Your task to perform on an android device: snooze an email in the gmail app Image 0: 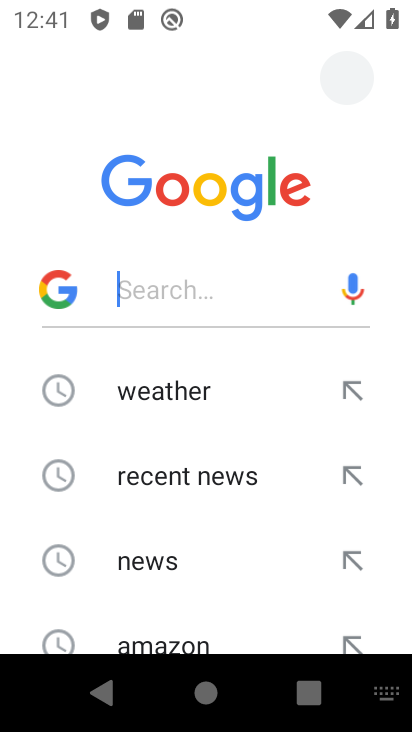
Step 0: press home button
Your task to perform on an android device: snooze an email in the gmail app Image 1: 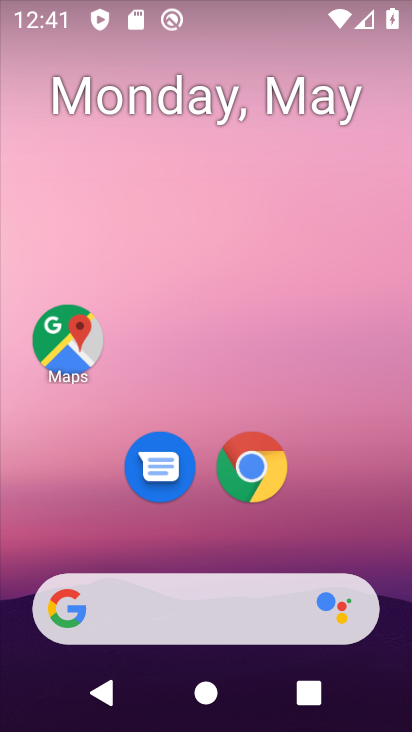
Step 1: press home button
Your task to perform on an android device: snooze an email in the gmail app Image 2: 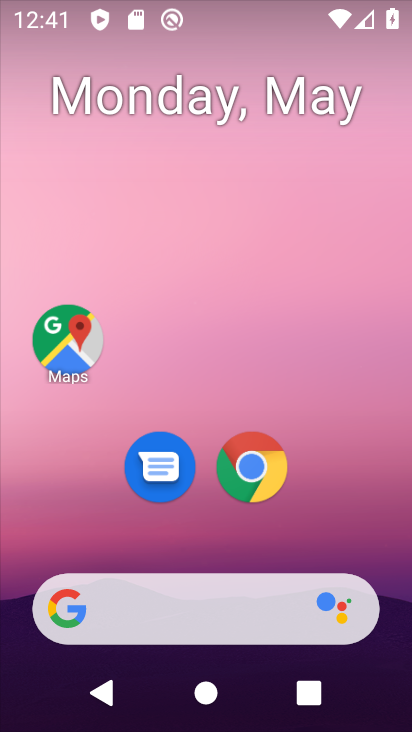
Step 2: press home button
Your task to perform on an android device: snooze an email in the gmail app Image 3: 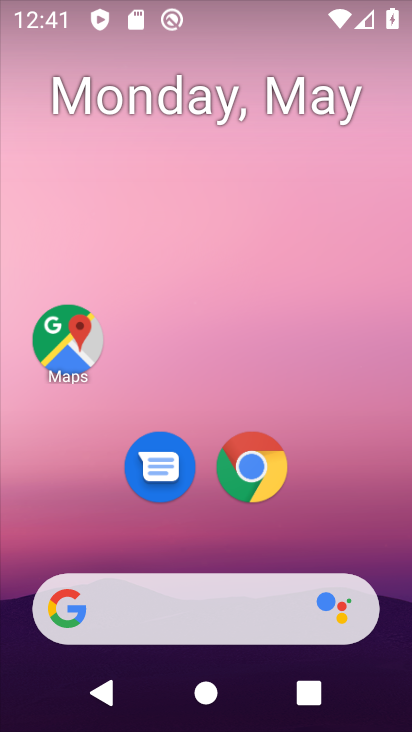
Step 3: drag from (399, 514) to (411, 287)
Your task to perform on an android device: snooze an email in the gmail app Image 4: 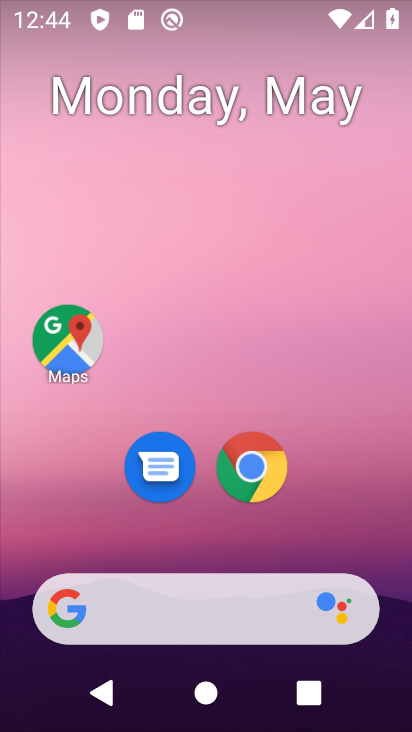
Step 4: drag from (379, 490) to (307, 66)
Your task to perform on an android device: snooze an email in the gmail app Image 5: 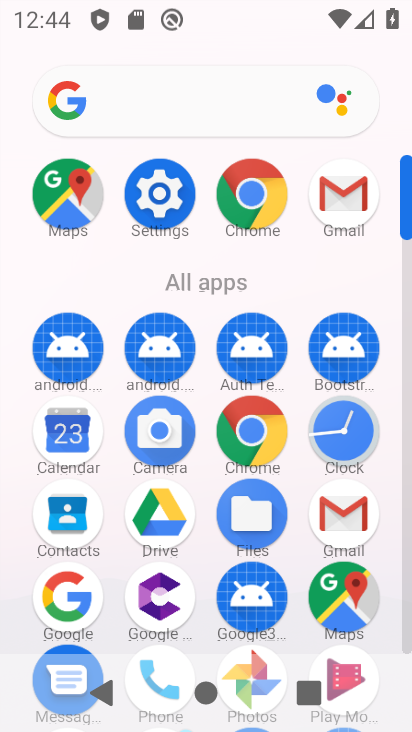
Step 5: click (340, 301)
Your task to perform on an android device: snooze an email in the gmail app Image 6: 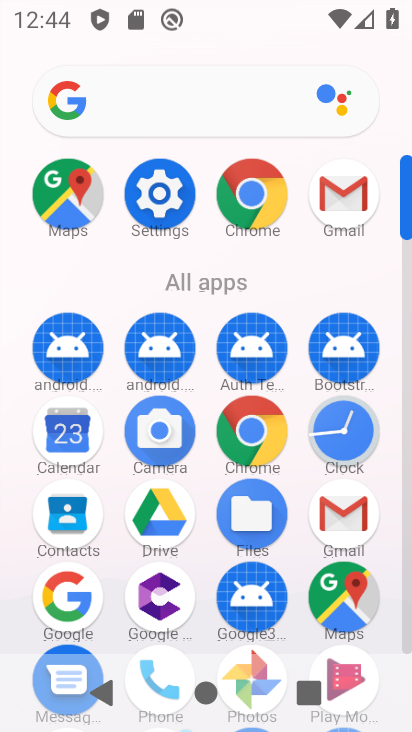
Step 6: click (335, 215)
Your task to perform on an android device: snooze an email in the gmail app Image 7: 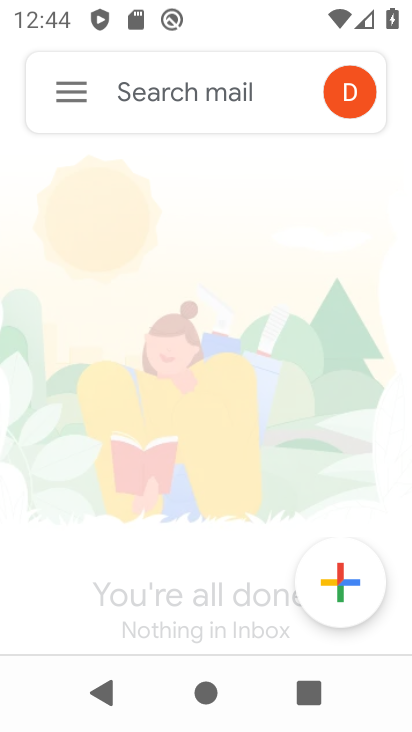
Step 7: drag from (343, 571) to (342, 292)
Your task to perform on an android device: snooze an email in the gmail app Image 8: 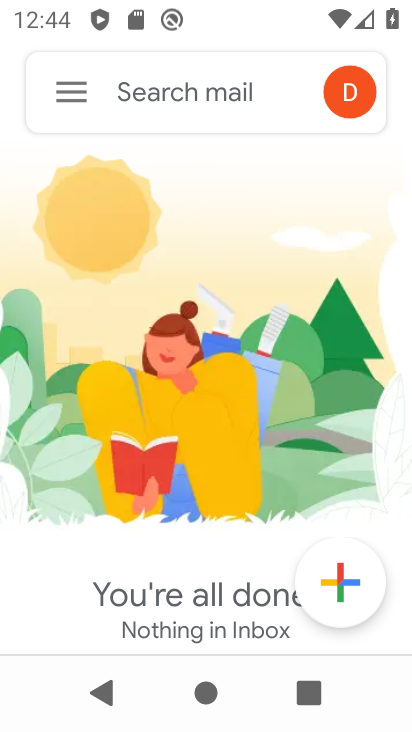
Step 8: click (77, 90)
Your task to perform on an android device: snooze an email in the gmail app Image 9: 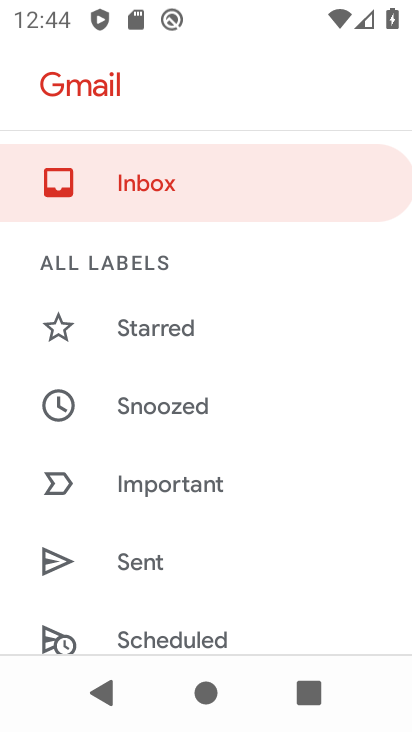
Step 9: task complete